Your task to perform on an android device: Open the web browser Image 0: 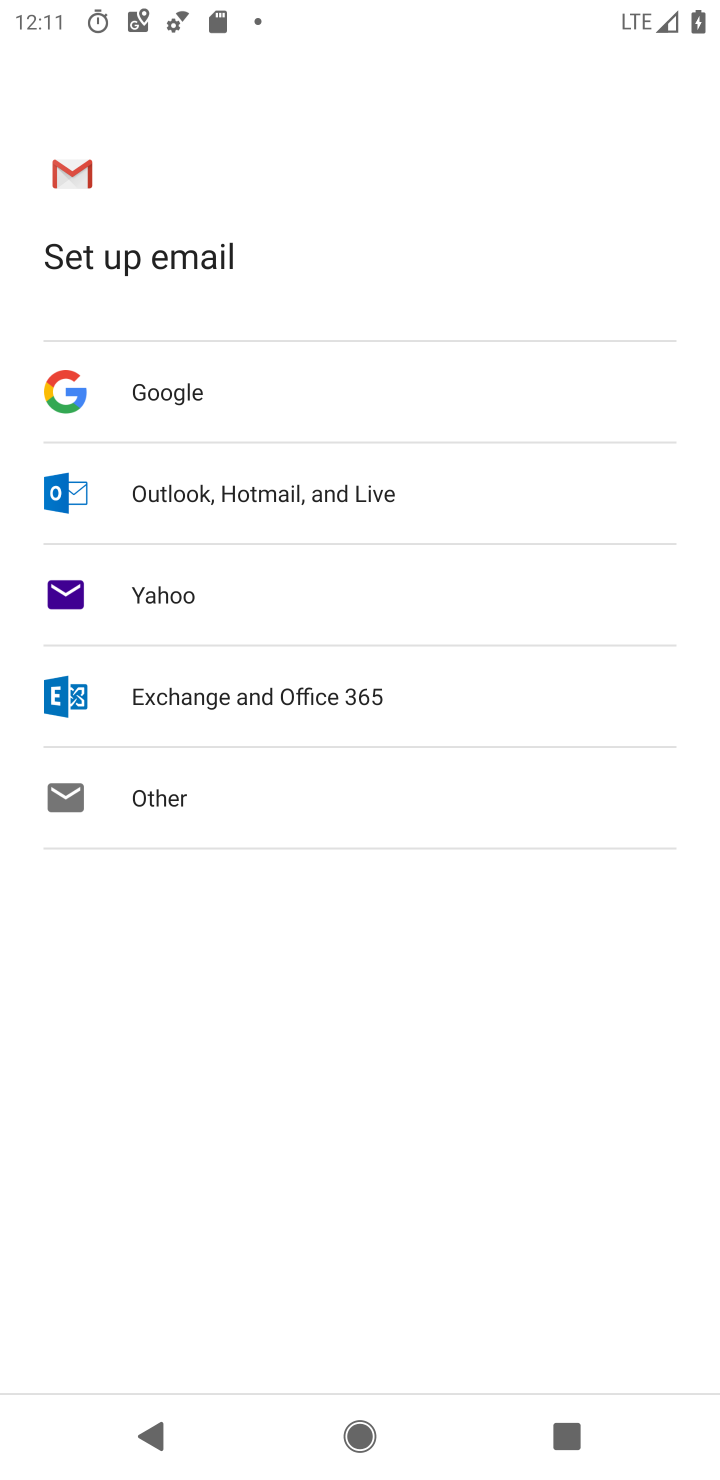
Step 0: press home button
Your task to perform on an android device: Open the web browser Image 1: 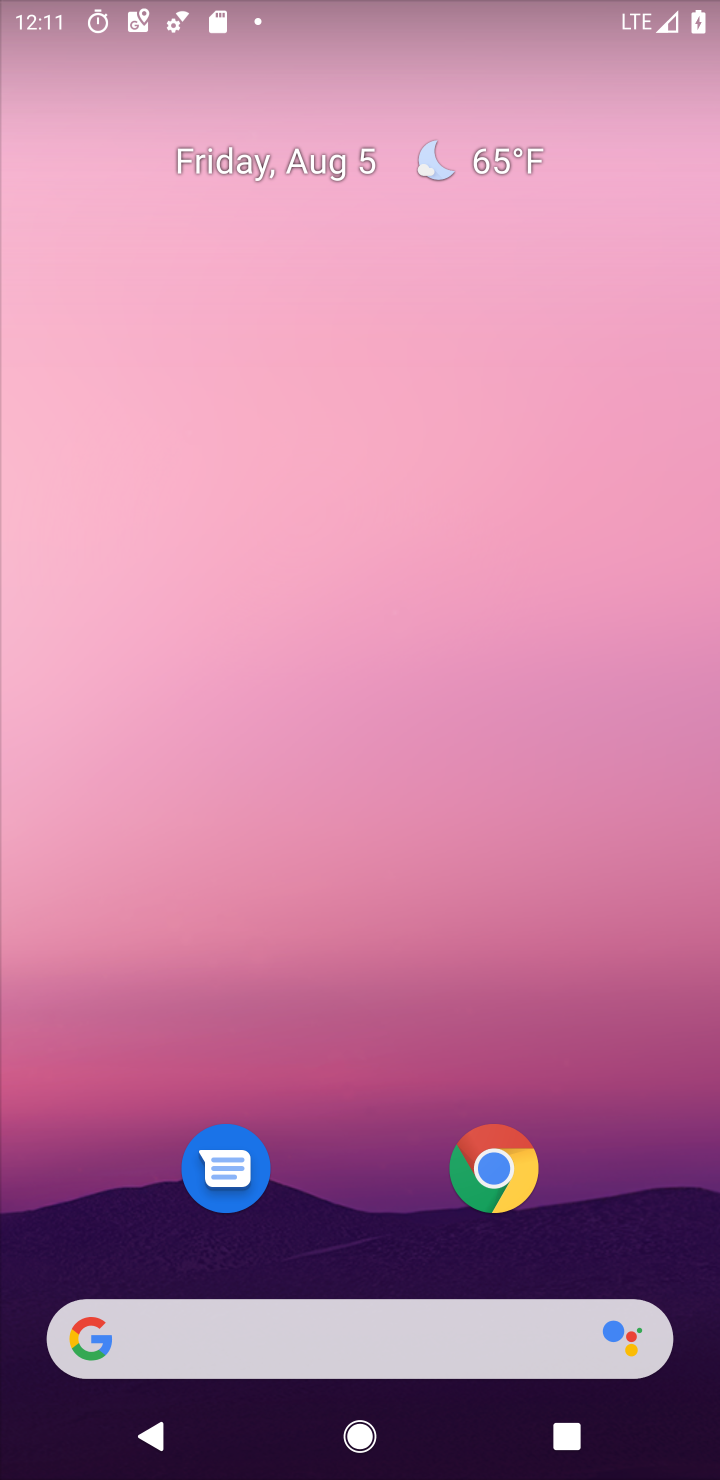
Step 1: click (484, 1193)
Your task to perform on an android device: Open the web browser Image 2: 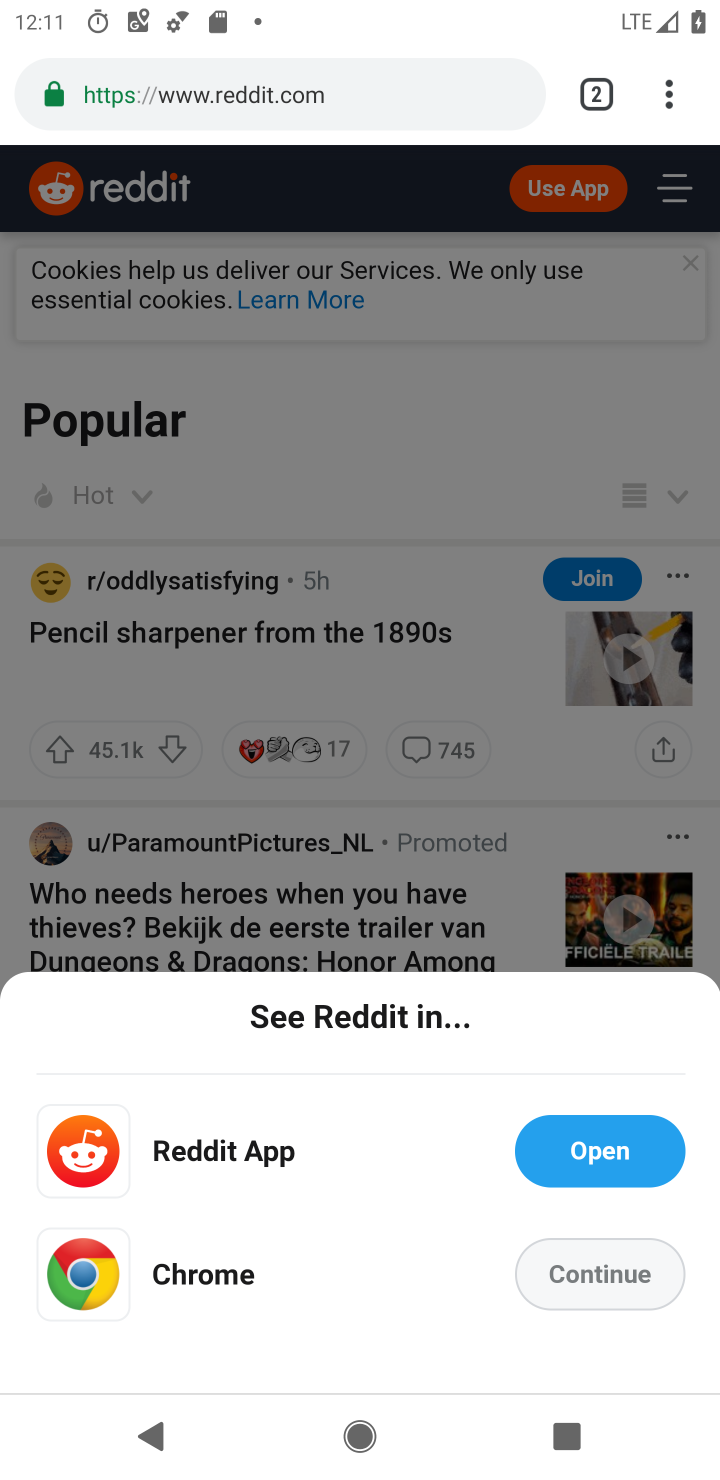
Step 2: click (588, 1283)
Your task to perform on an android device: Open the web browser Image 3: 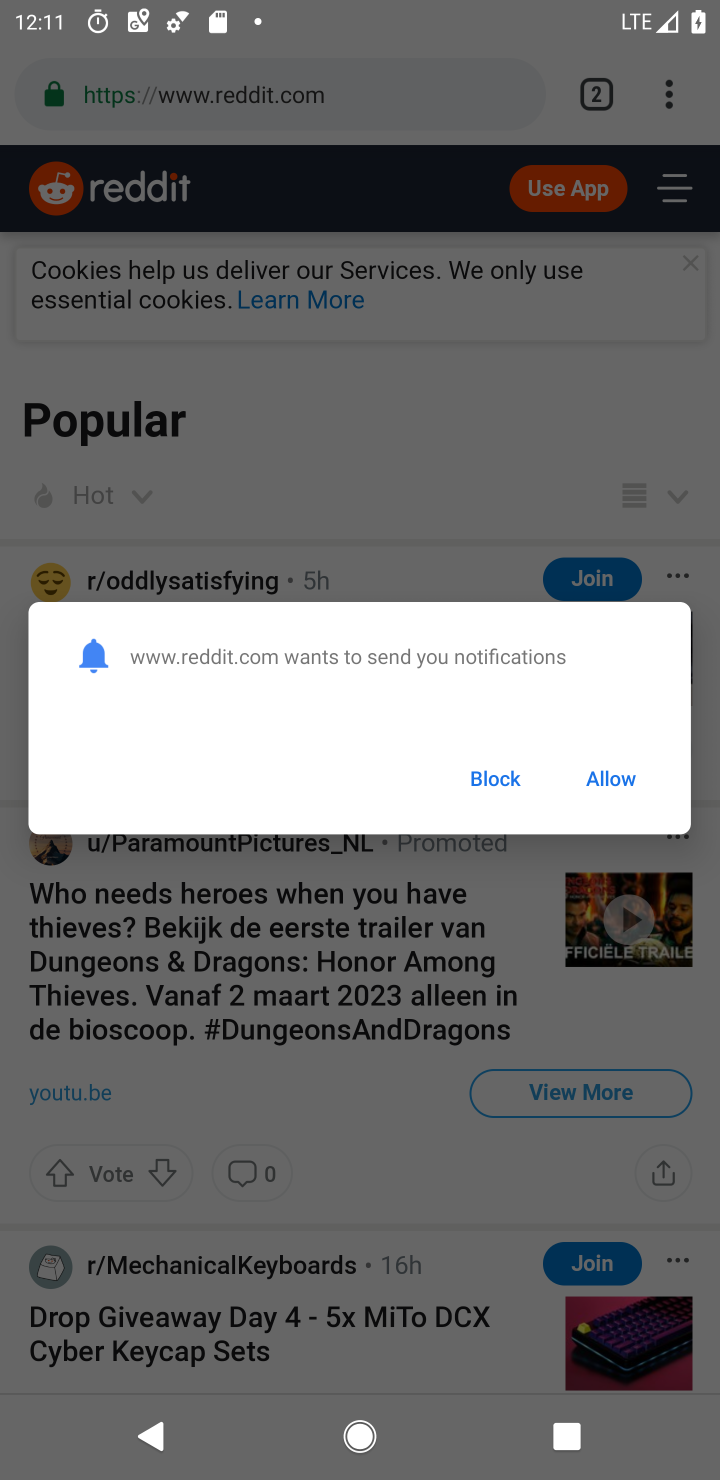
Step 3: task complete